Your task to perform on an android device: Go to wifi settings Image 0: 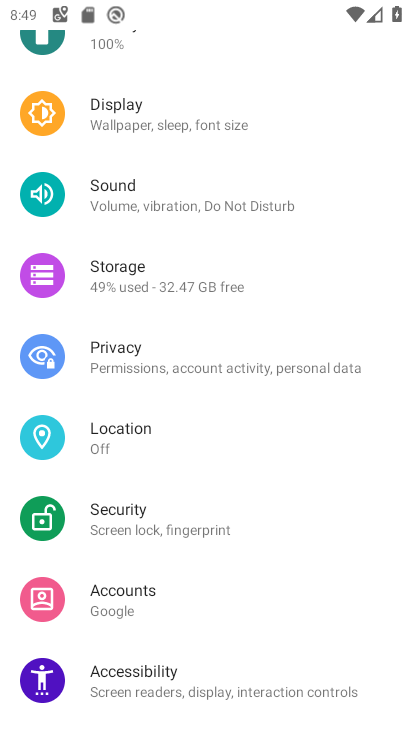
Step 0: press home button
Your task to perform on an android device: Go to wifi settings Image 1: 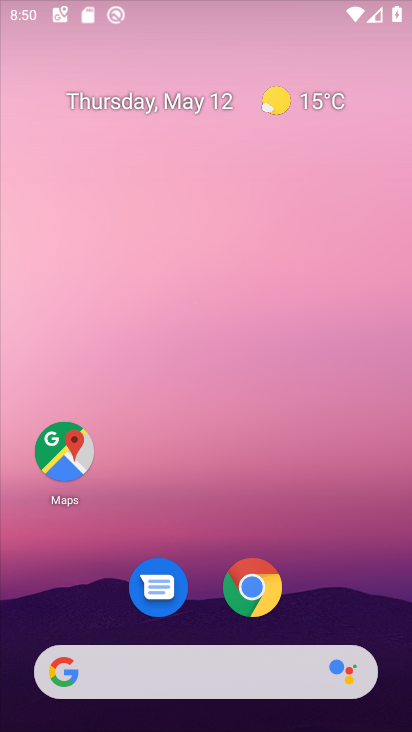
Step 1: drag from (387, 628) to (307, 67)
Your task to perform on an android device: Go to wifi settings Image 2: 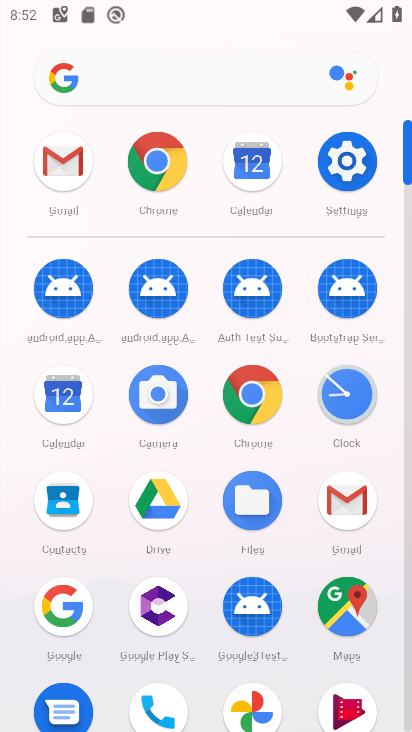
Step 2: click (360, 184)
Your task to perform on an android device: Go to wifi settings Image 3: 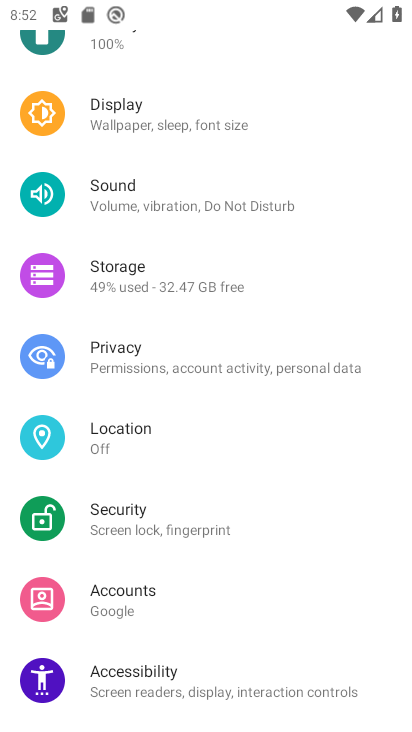
Step 3: drag from (194, 133) to (173, 685)
Your task to perform on an android device: Go to wifi settings Image 4: 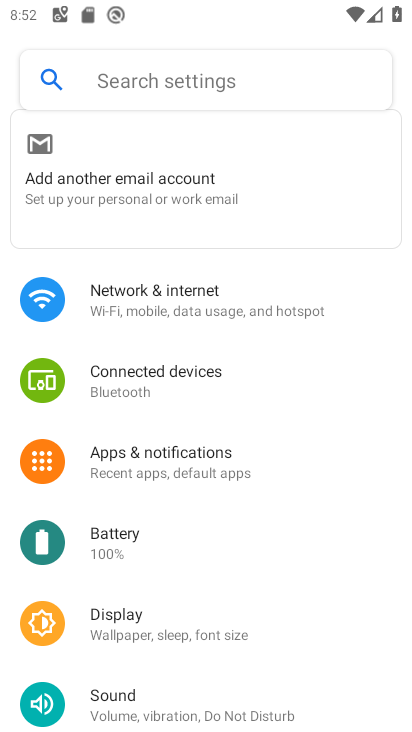
Step 4: drag from (167, 208) to (164, 529)
Your task to perform on an android device: Go to wifi settings Image 5: 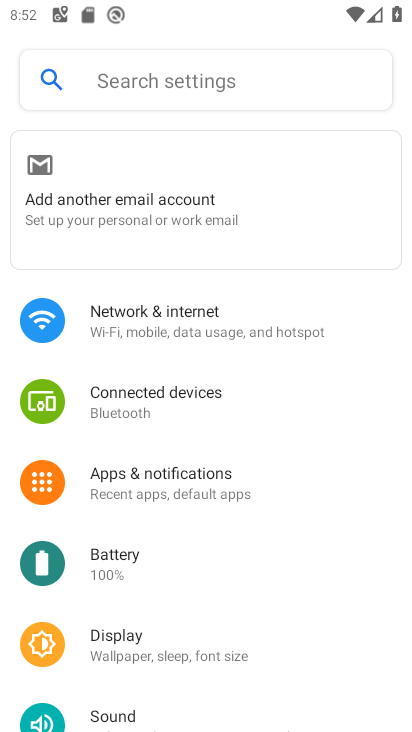
Step 5: click (193, 316)
Your task to perform on an android device: Go to wifi settings Image 6: 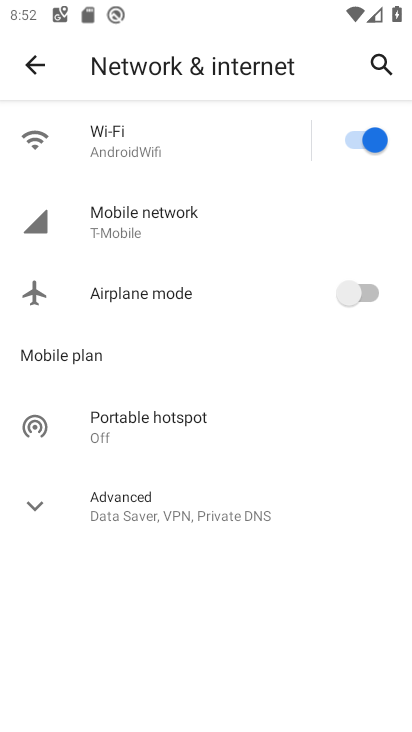
Step 6: click (173, 169)
Your task to perform on an android device: Go to wifi settings Image 7: 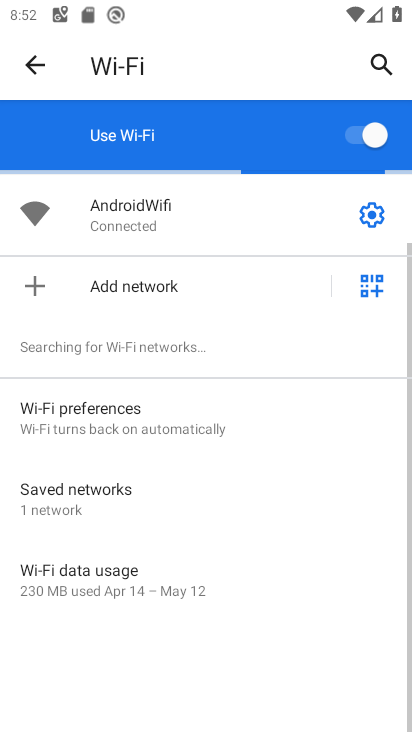
Step 7: task complete